Your task to perform on an android device: Go to accessibility settings Image 0: 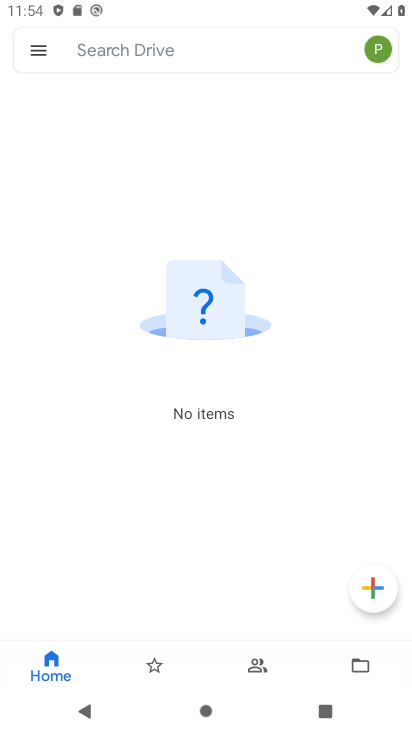
Step 0: press back button
Your task to perform on an android device: Go to accessibility settings Image 1: 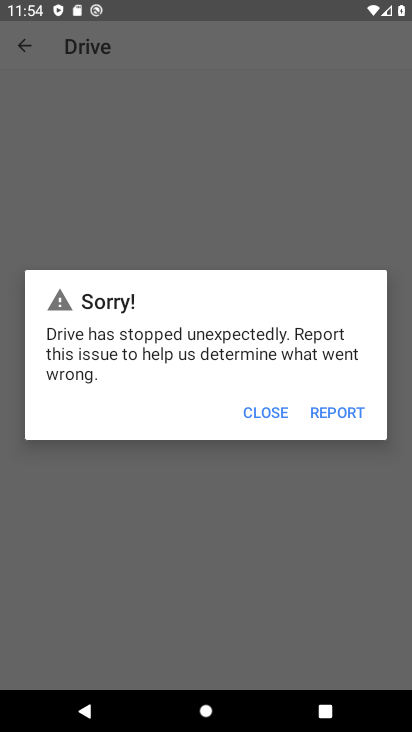
Step 1: press home button
Your task to perform on an android device: Go to accessibility settings Image 2: 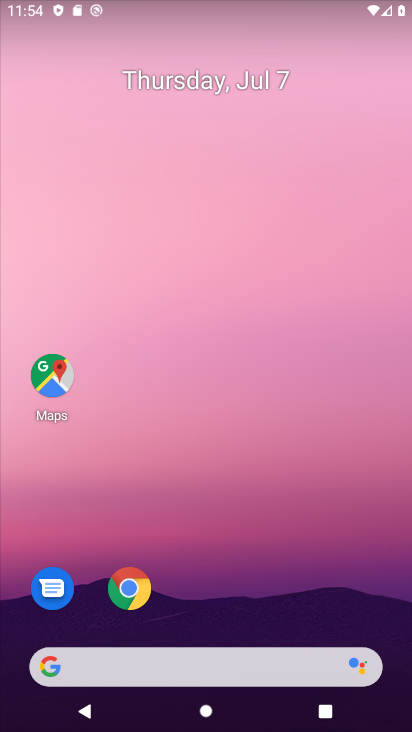
Step 2: drag from (206, 406) to (116, 41)
Your task to perform on an android device: Go to accessibility settings Image 3: 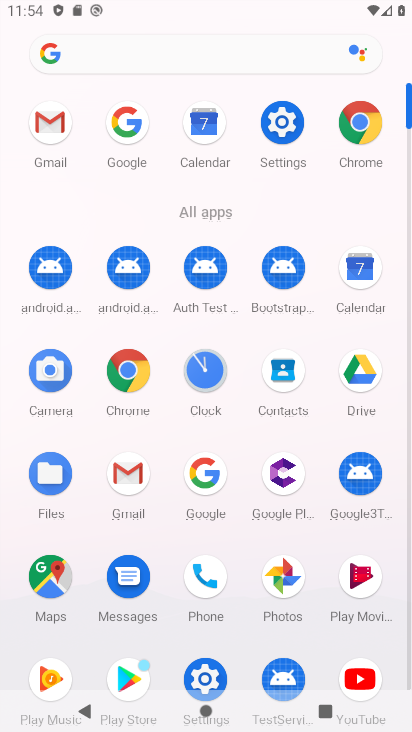
Step 3: click (294, 122)
Your task to perform on an android device: Go to accessibility settings Image 4: 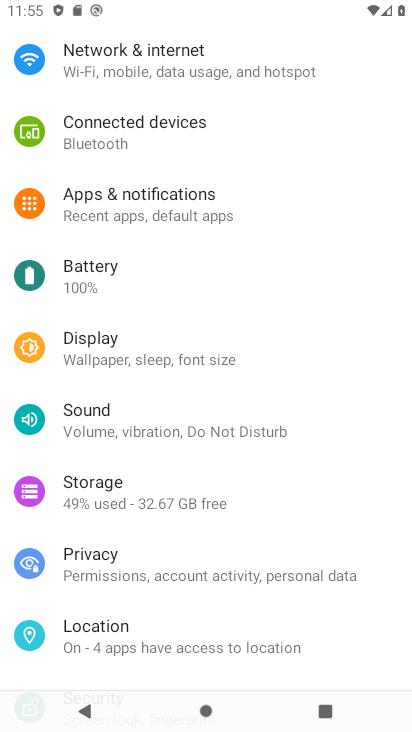
Step 4: drag from (192, 437) to (140, 67)
Your task to perform on an android device: Go to accessibility settings Image 5: 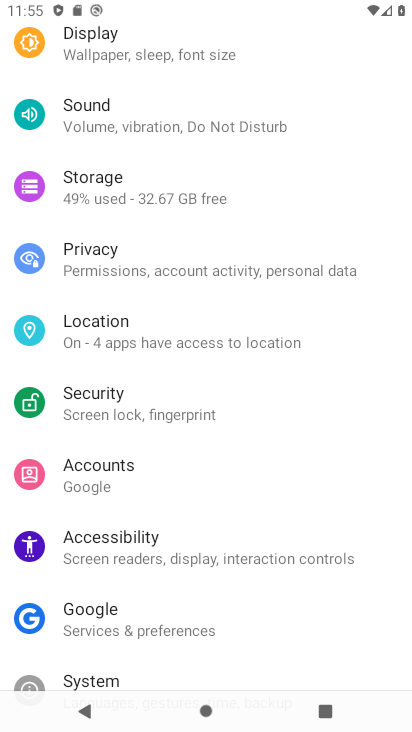
Step 5: click (190, 547)
Your task to perform on an android device: Go to accessibility settings Image 6: 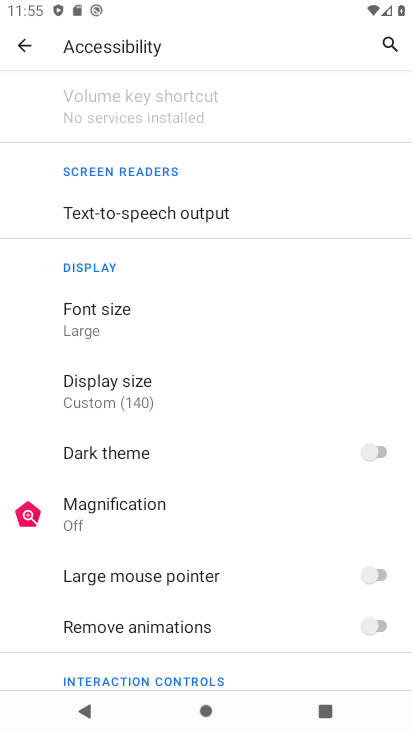
Step 6: task complete